Your task to perform on an android device: turn on location history Image 0: 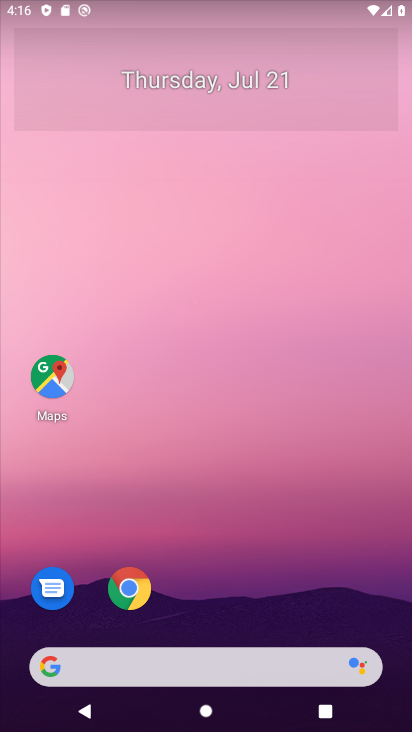
Step 0: drag from (264, 533) to (213, 16)
Your task to perform on an android device: turn on location history Image 1: 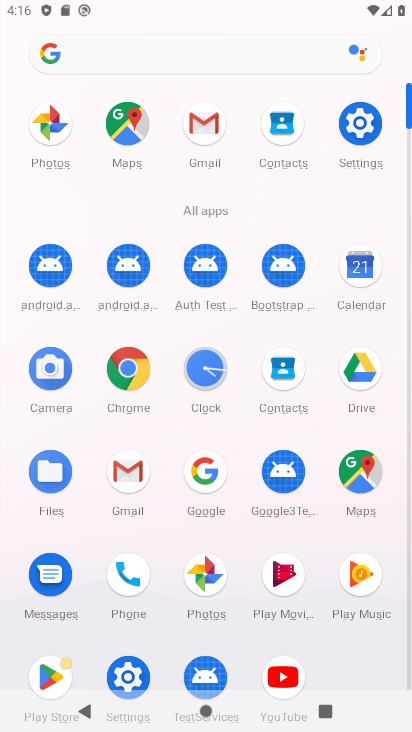
Step 1: click (355, 123)
Your task to perform on an android device: turn on location history Image 2: 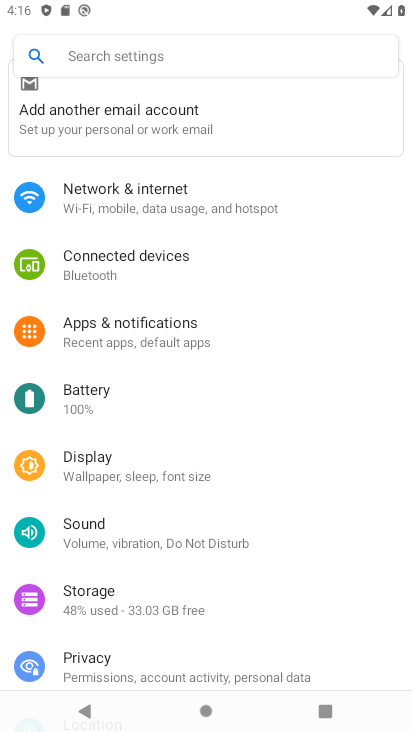
Step 2: drag from (187, 327) to (192, 231)
Your task to perform on an android device: turn on location history Image 3: 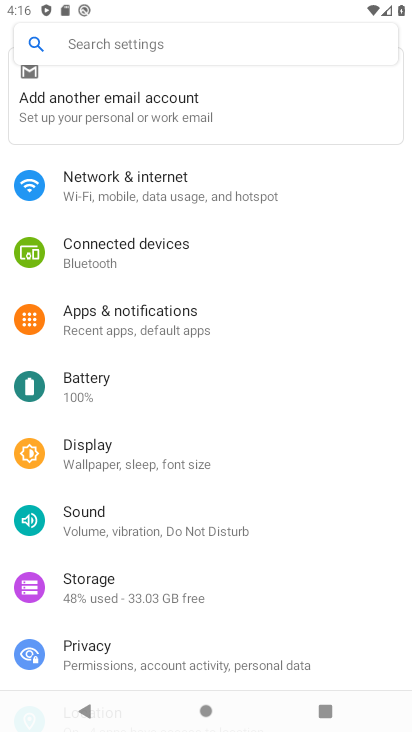
Step 3: drag from (181, 513) to (193, 242)
Your task to perform on an android device: turn on location history Image 4: 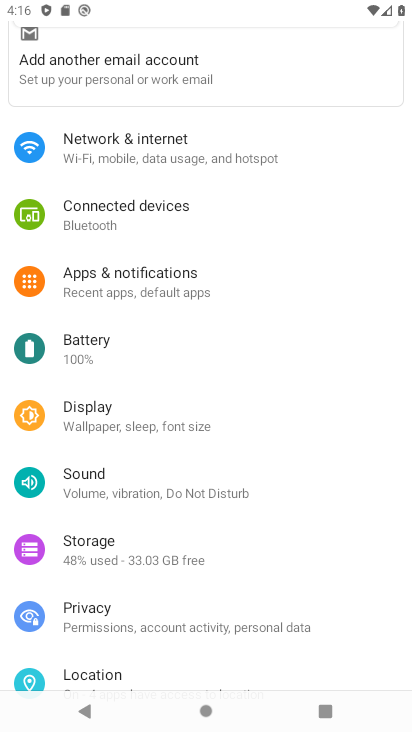
Step 4: drag from (112, 645) to (187, 181)
Your task to perform on an android device: turn on location history Image 5: 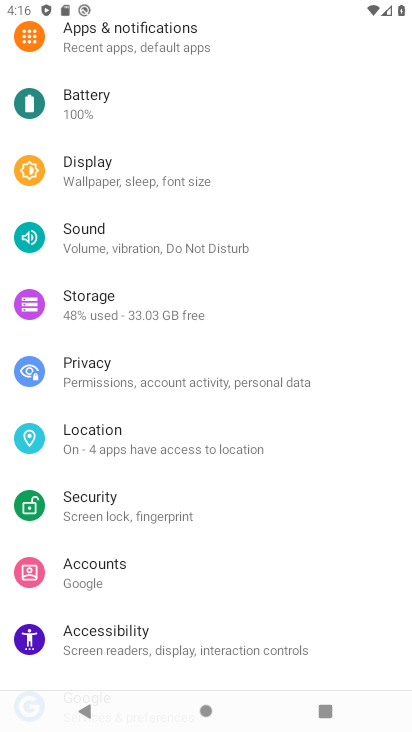
Step 5: click (109, 441)
Your task to perform on an android device: turn on location history Image 6: 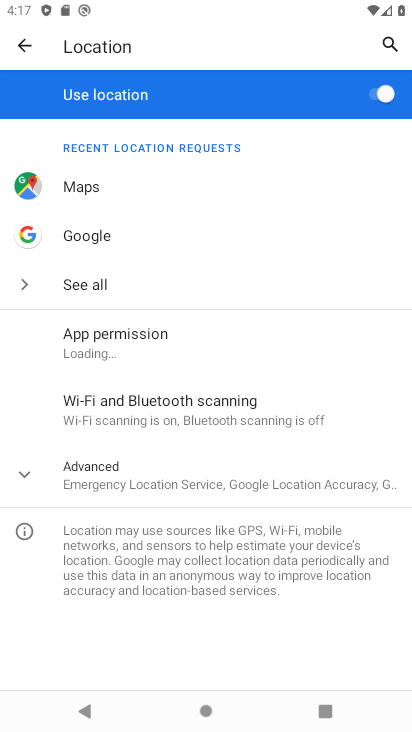
Step 6: task complete